Your task to perform on an android device: Open maps Image 0: 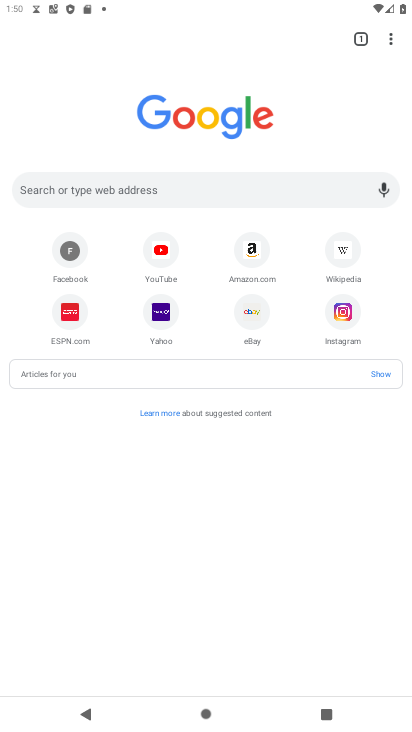
Step 0: press home button
Your task to perform on an android device: Open maps Image 1: 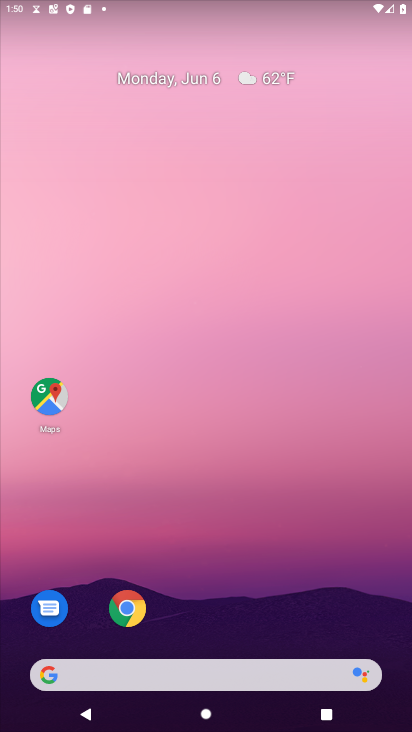
Step 1: drag from (300, 588) to (372, 111)
Your task to perform on an android device: Open maps Image 2: 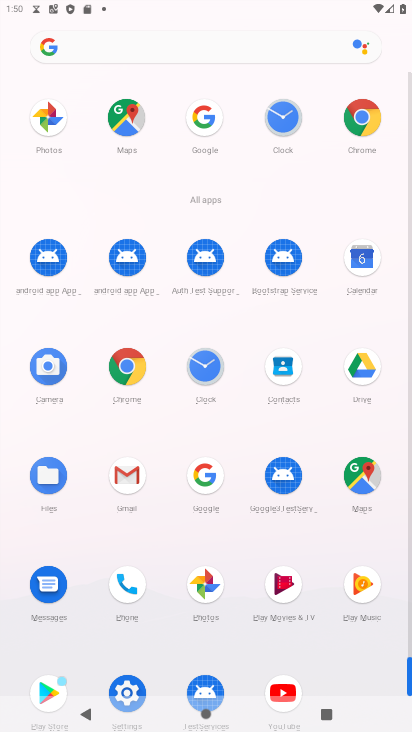
Step 2: click (365, 464)
Your task to perform on an android device: Open maps Image 3: 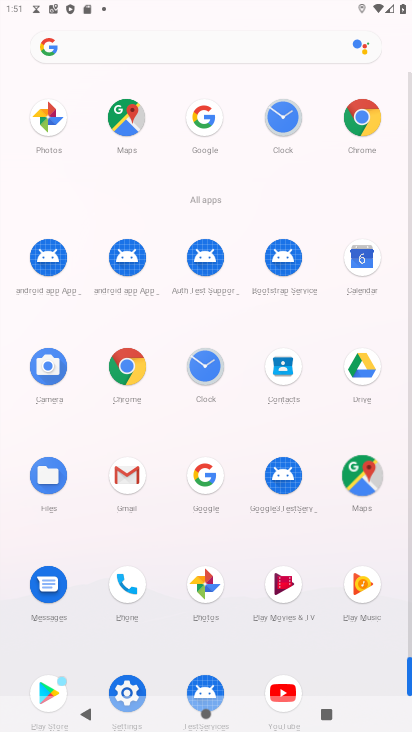
Step 3: click (369, 461)
Your task to perform on an android device: Open maps Image 4: 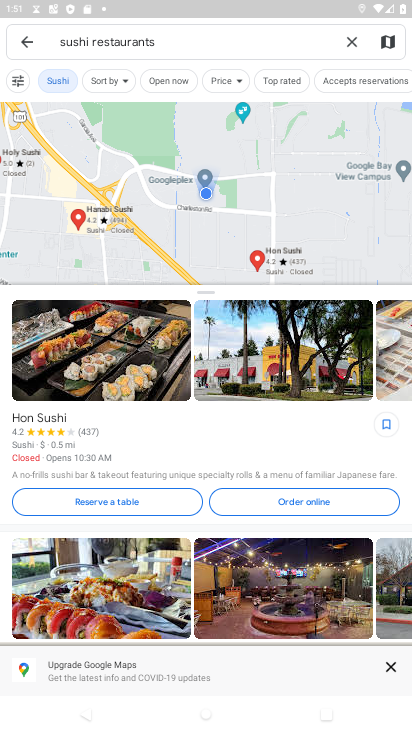
Step 4: task complete